Your task to perform on an android device: delete the emails in spam in the gmail app Image 0: 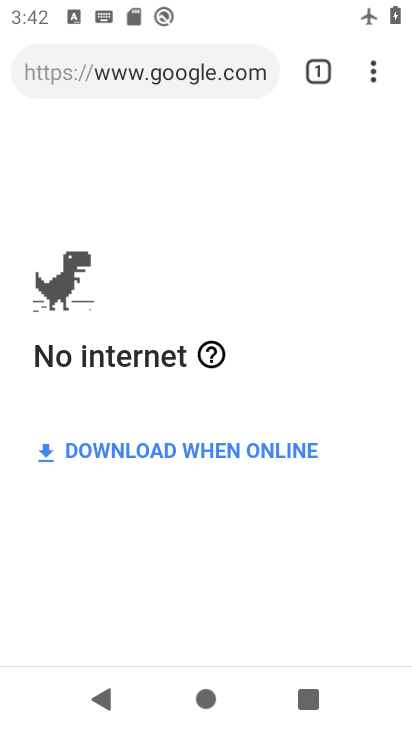
Step 0: press home button
Your task to perform on an android device: delete the emails in spam in the gmail app Image 1: 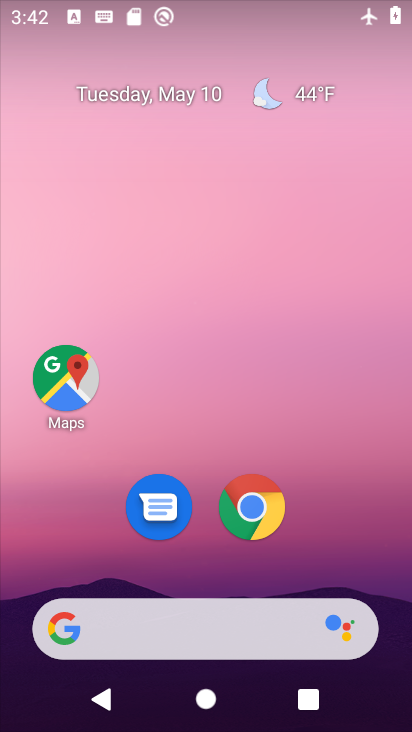
Step 1: drag from (198, 554) to (246, 202)
Your task to perform on an android device: delete the emails in spam in the gmail app Image 2: 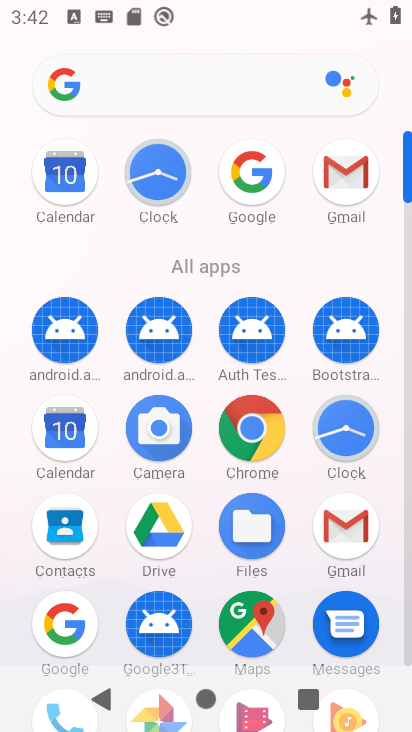
Step 2: click (336, 185)
Your task to perform on an android device: delete the emails in spam in the gmail app Image 3: 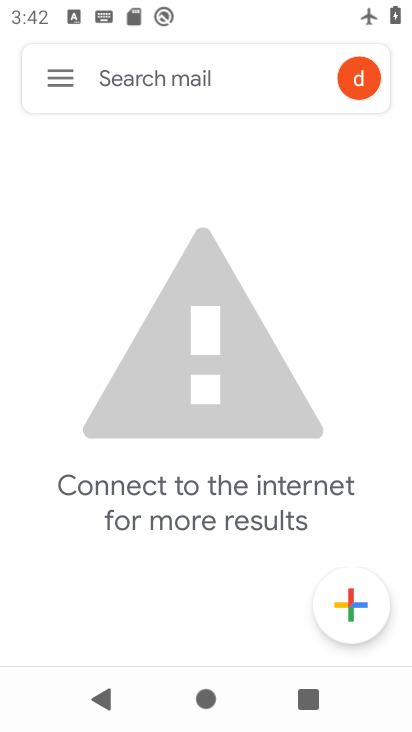
Step 3: click (59, 85)
Your task to perform on an android device: delete the emails in spam in the gmail app Image 4: 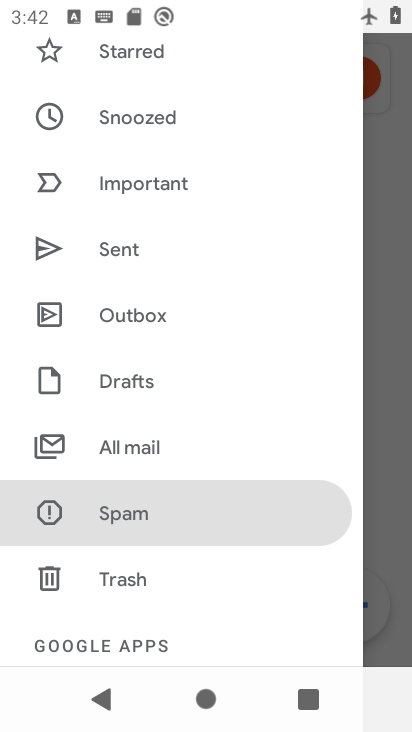
Step 4: click (149, 480)
Your task to perform on an android device: delete the emails in spam in the gmail app Image 5: 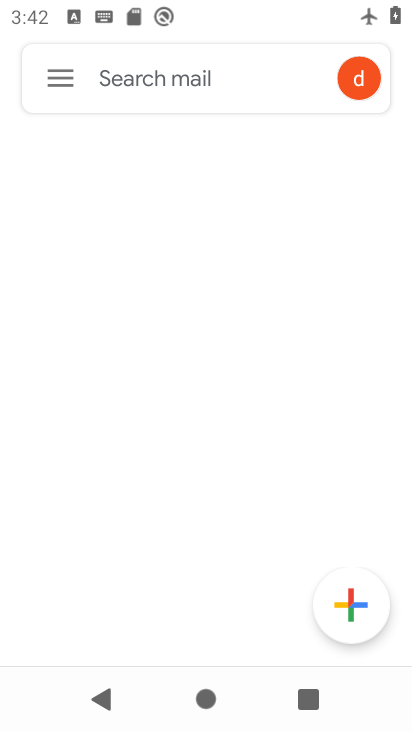
Step 5: task complete